Your task to perform on an android device: What is the news today? Image 0: 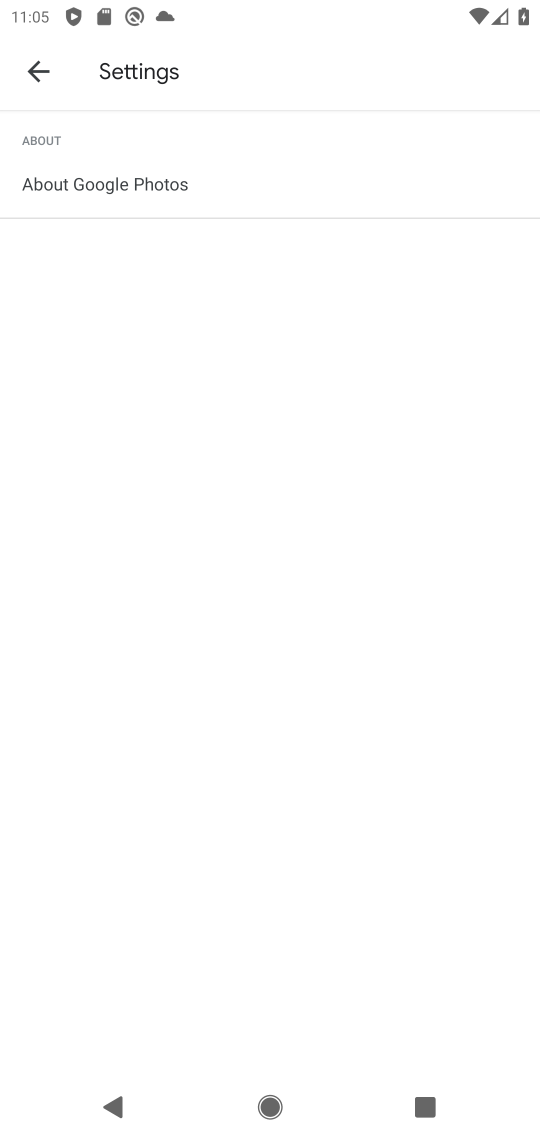
Step 0: press home button
Your task to perform on an android device: What is the news today? Image 1: 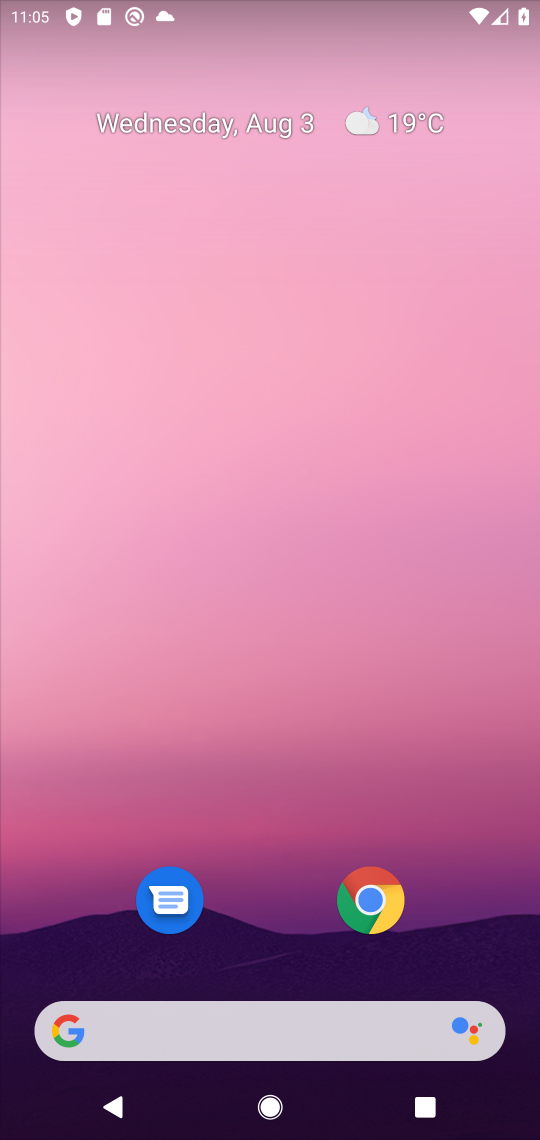
Step 1: click (69, 1021)
Your task to perform on an android device: What is the news today? Image 2: 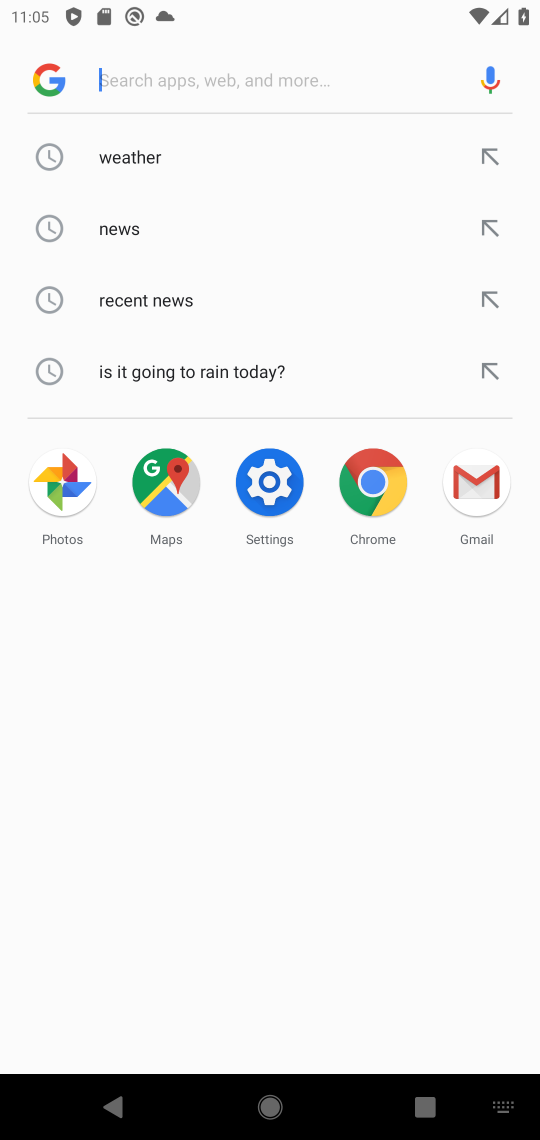
Step 2: type "What is the news today?"
Your task to perform on an android device: What is the news today? Image 3: 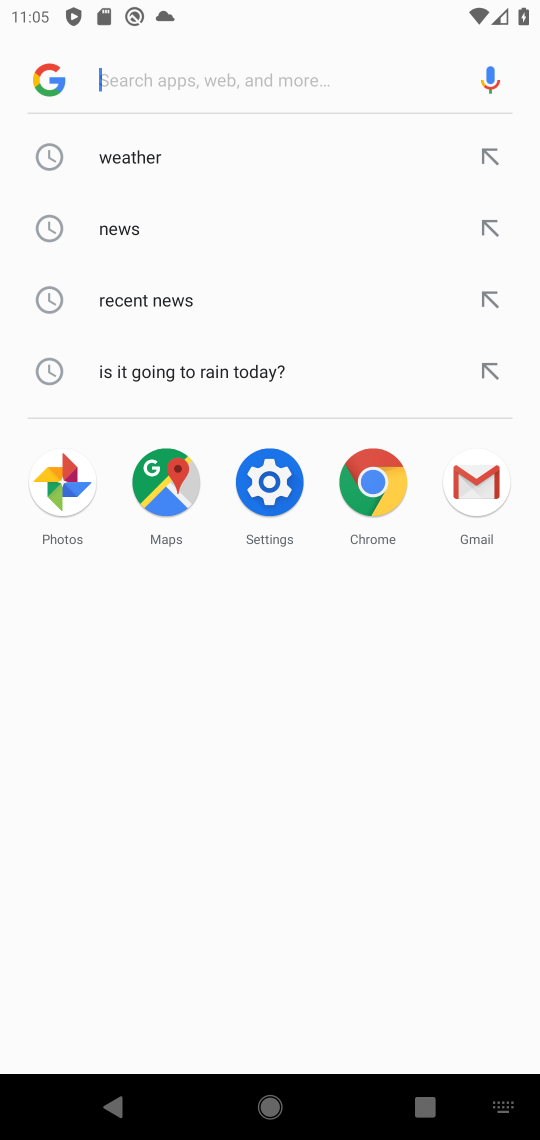
Step 3: click (173, 82)
Your task to perform on an android device: What is the news today? Image 4: 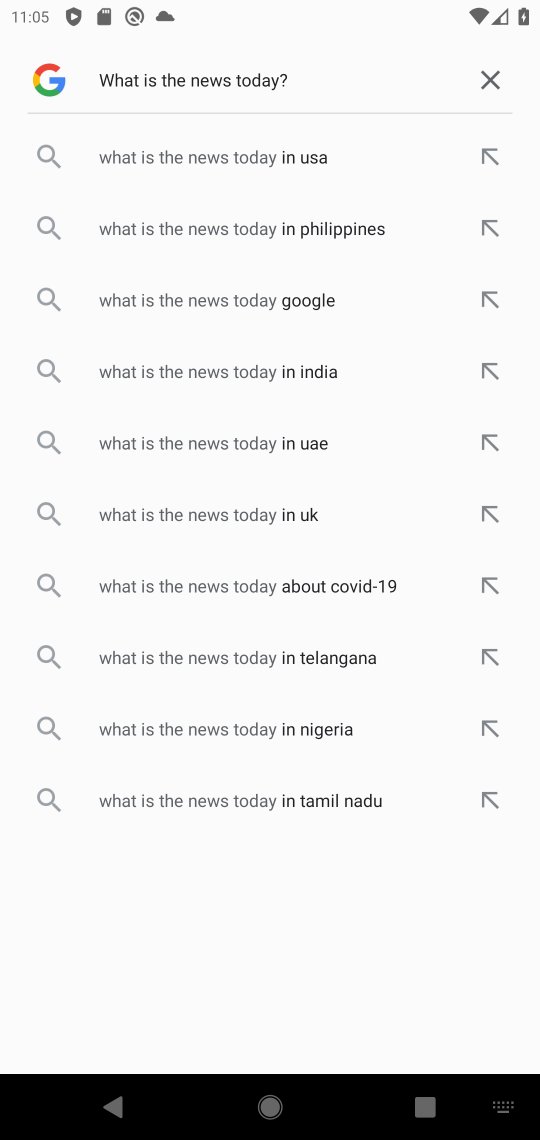
Step 4: press enter
Your task to perform on an android device: What is the news today? Image 5: 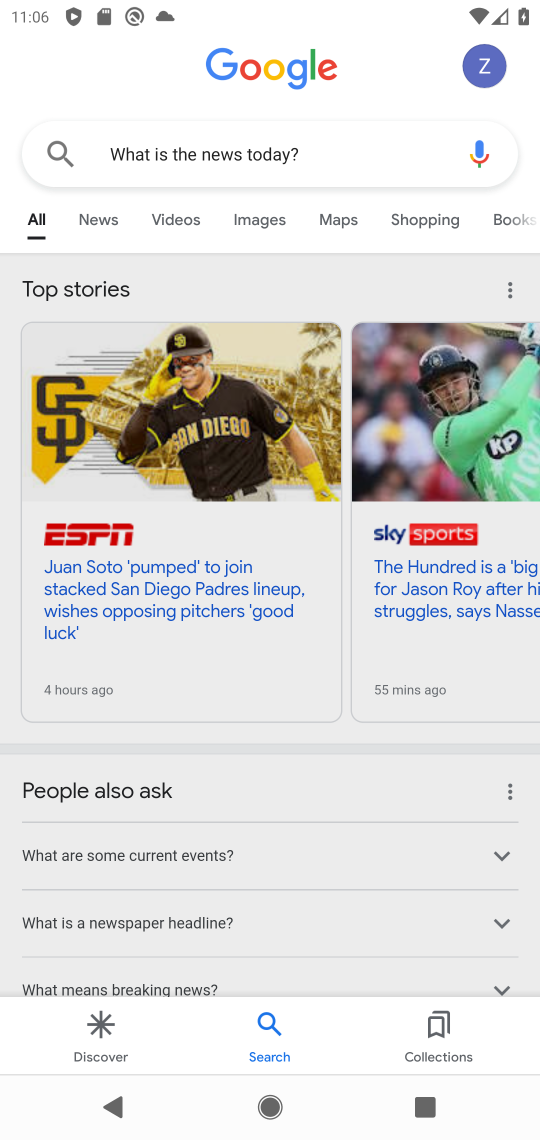
Step 5: task complete